Your task to perform on an android device: Go to settings Image 0: 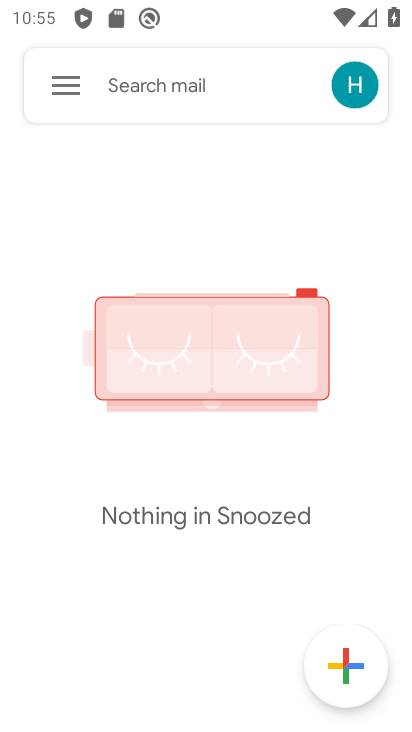
Step 0: press home button
Your task to perform on an android device: Go to settings Image 1: 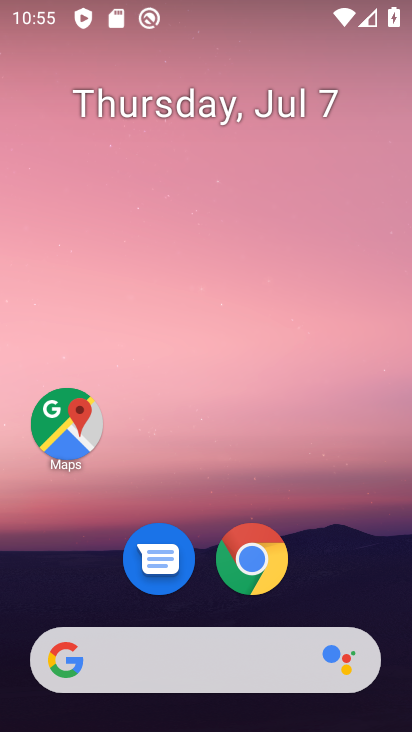
Step 1: drag from (350, 484) to (366, 101)
Your task to perform on an android device: Go to settings Image 2: 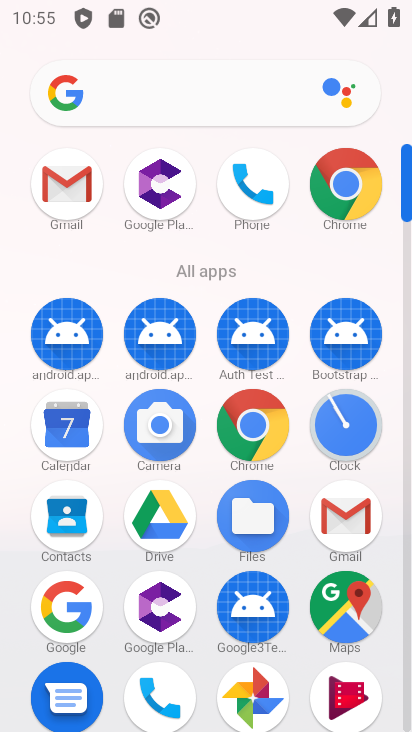
Step 2: drag from (385, 576) to (392, 248)
Your task to perform on an android device: Go to settings Image 3: 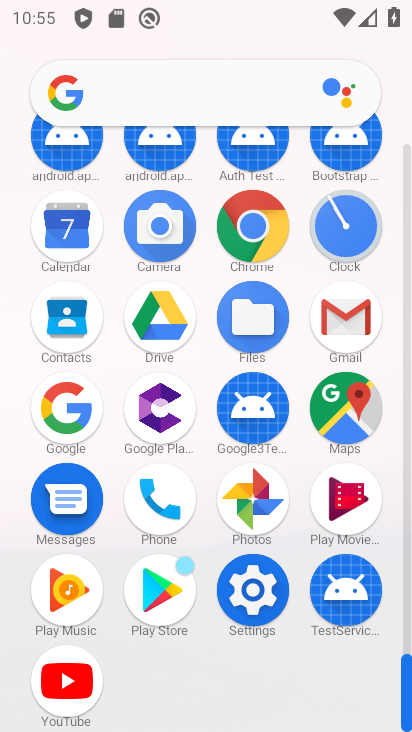
Step 3: click (257, 587)
Your task to perform on an android device: Go to settings Image 4: 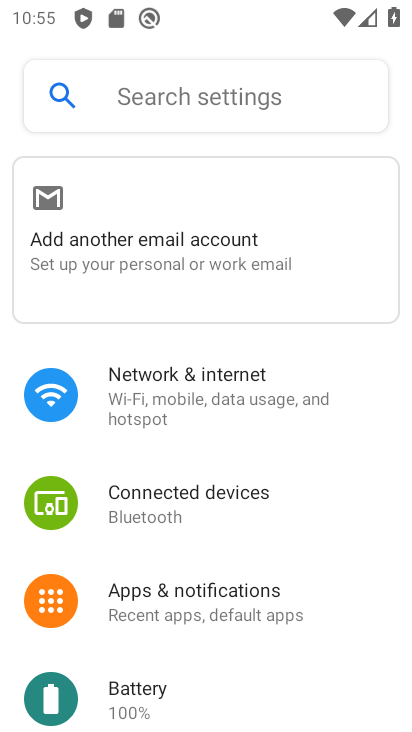
Step 4: task complete